Your task to perform on an android device: turn on bluetooth scan Image 0: 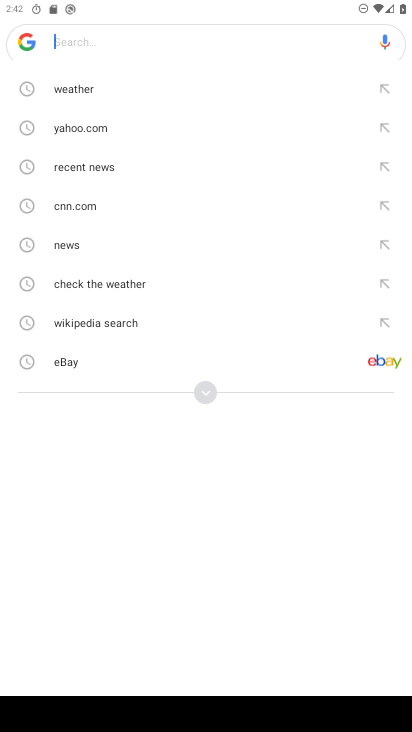
Step 0: press home button
Your task to perform on an android device: turn on bluetooth scan Image 1: 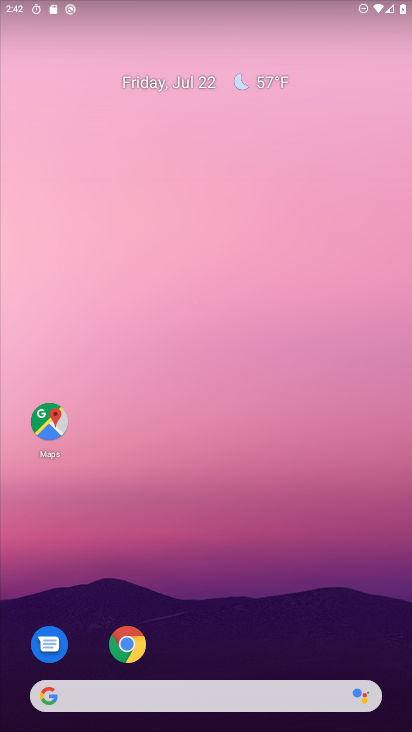
Step 1: drag from (196, 622) to (154, 250)
Your task to perform on an android device: turn on bluetooth scan Image 2: 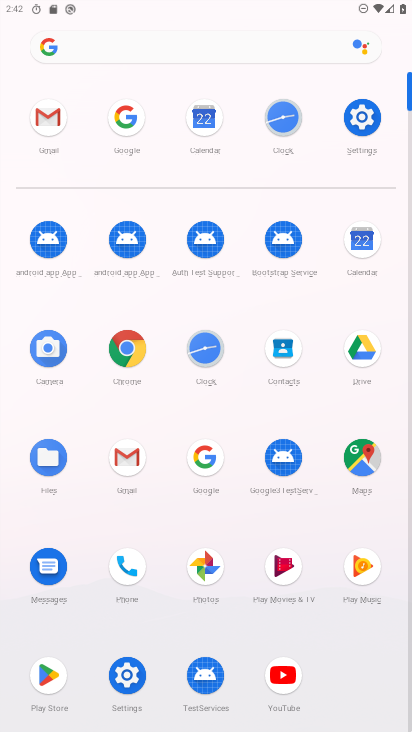
Step 2: click (343, 124)
Your task to perform on an android device: turn on bluetooth scan Image 3: 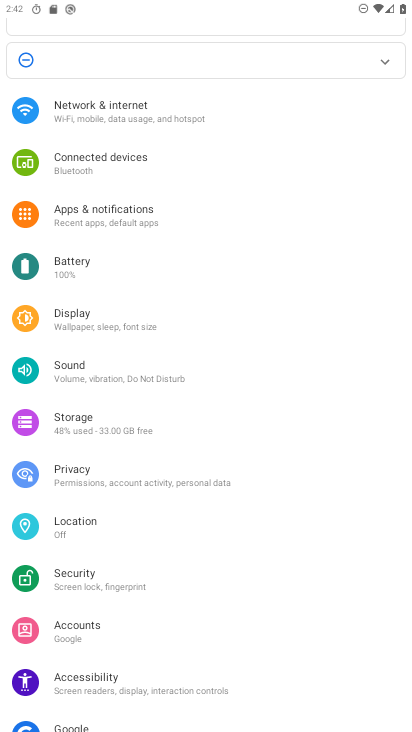
Step 3: click (105, 532)
Your task to perform on an android device: turn on bluetooth scan Image 4: 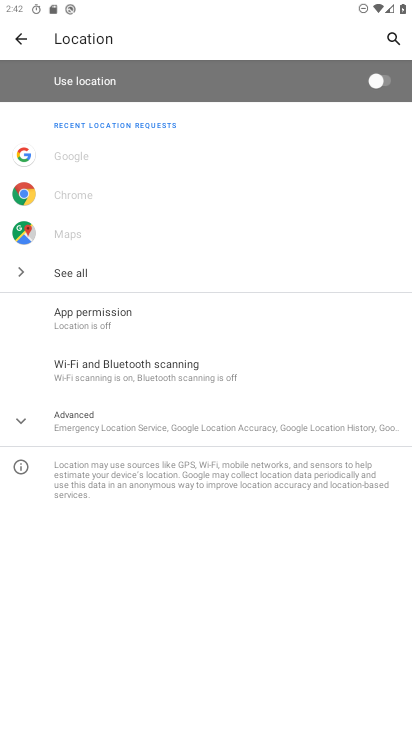
Step 4: click (207, 399)
Your task to perform on an android device: turn on bluetooth scan Image 5: 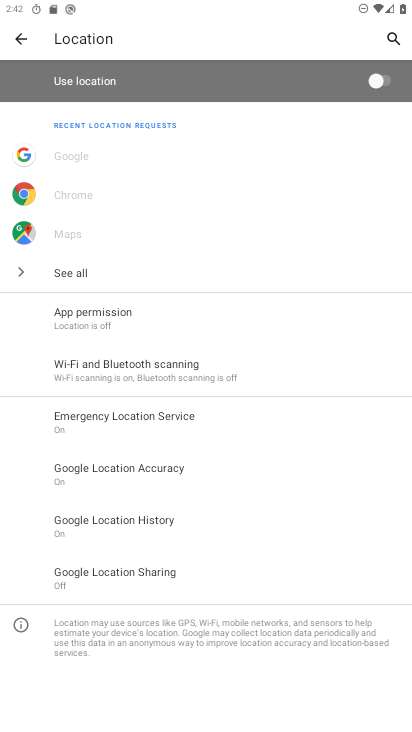
Step 5: click (232, 360)
Your task to perform on an android device: turn on bluetooth scan Image 6: 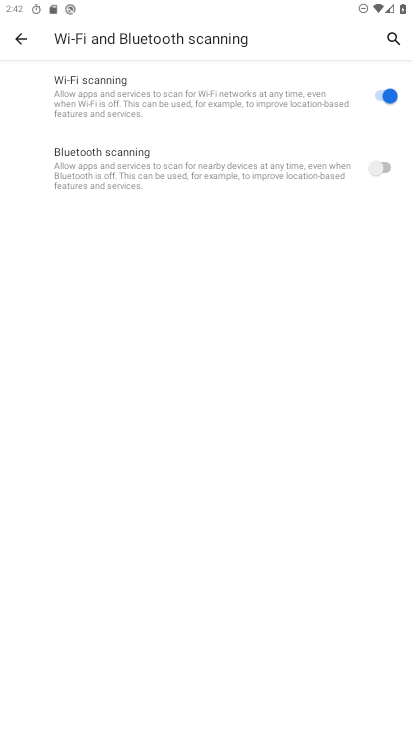
Step 6: click (378, 170)
Your task to perform on an android device: turn on bluetooth scan Image 7: 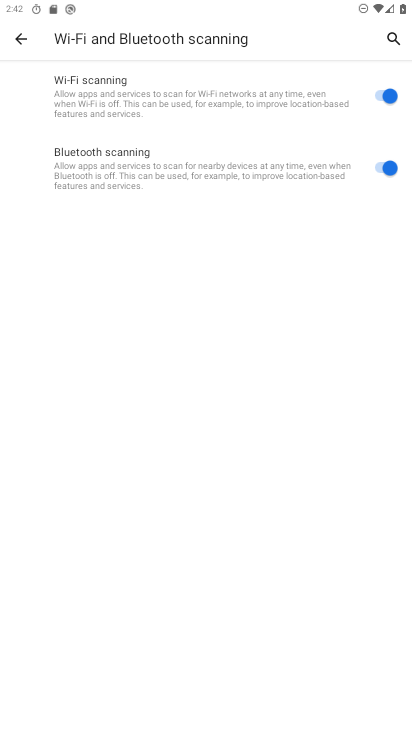
Step 7: task complete